Your task to perform on an android device: turn off sleep mode Image 0: 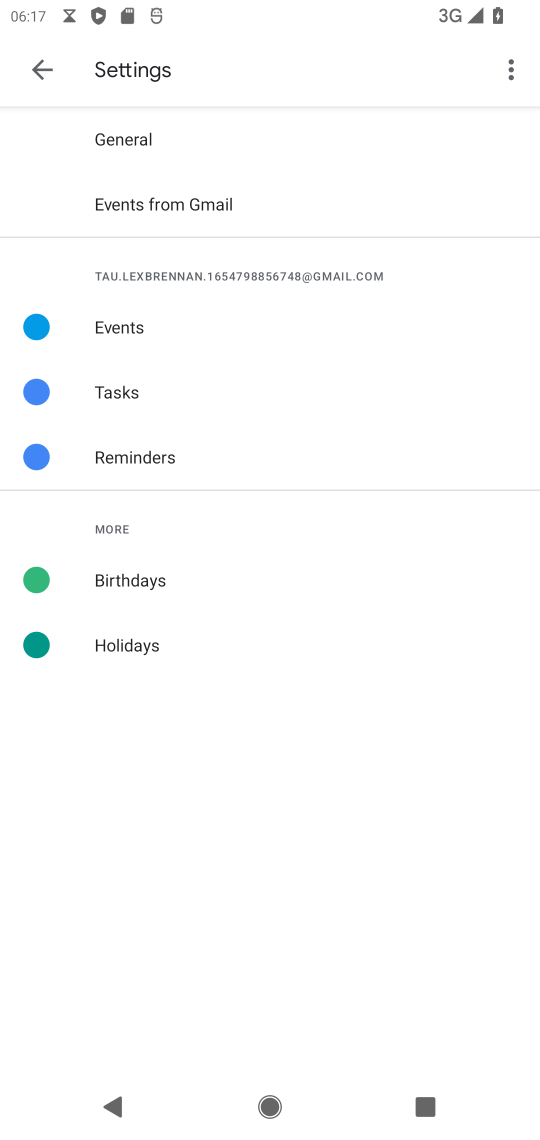
Step 0: press home button
Your task to perform on an android device: turn off sleep mode Image 1: 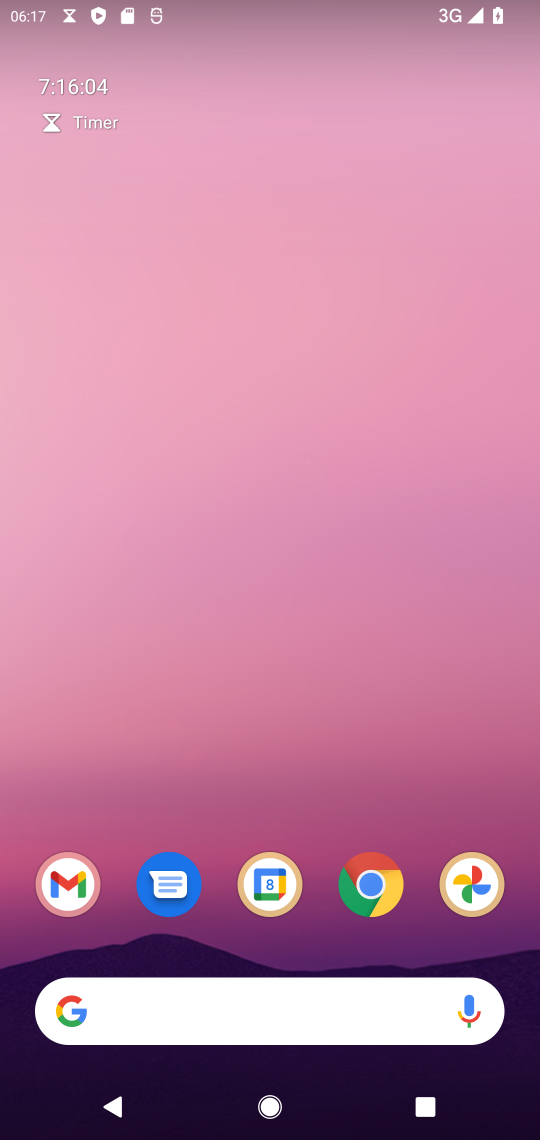
Step 1: click (335, 45)
Your task to perform on an android device: turn off sleep mode Image 2: 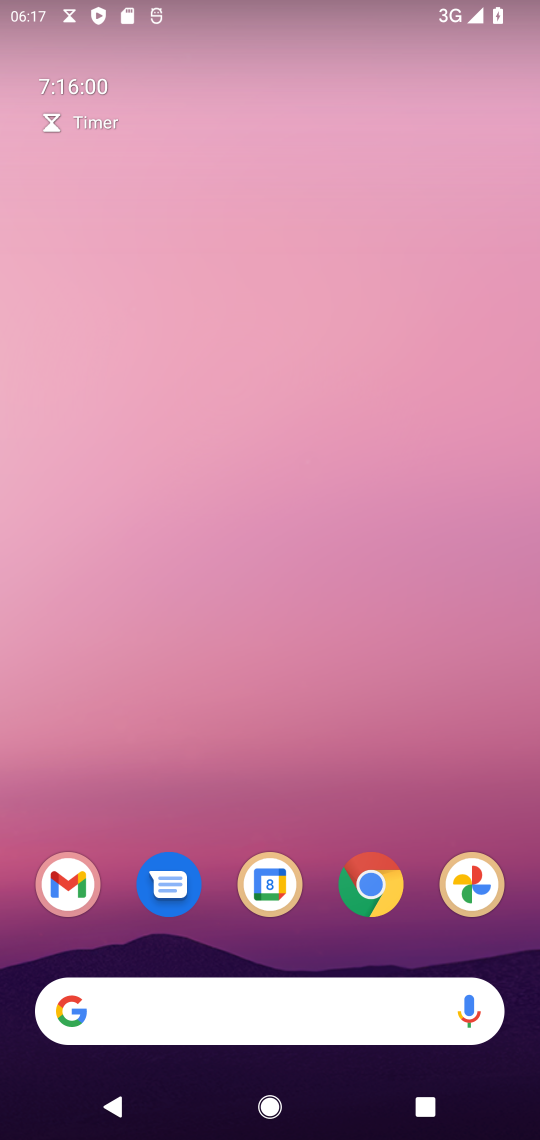
Step 2: drag from (438, 961) to (377, 269)
Your task to perform on an android device: turn off sleep mode Image 3: 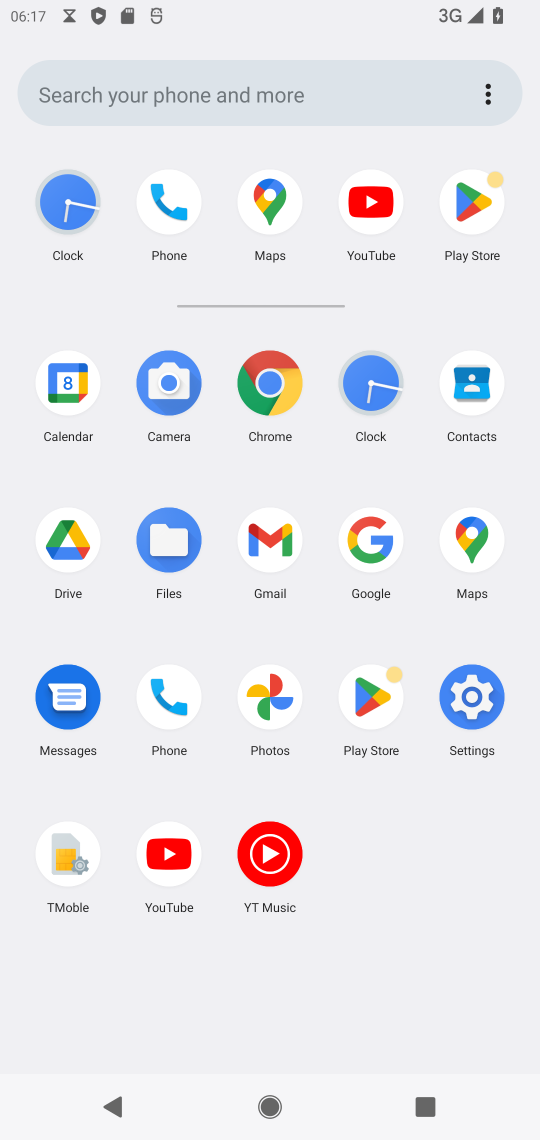
Step 3: click (486, 724)
Your task to perform on an android device: turn off sleep mode Image 4: 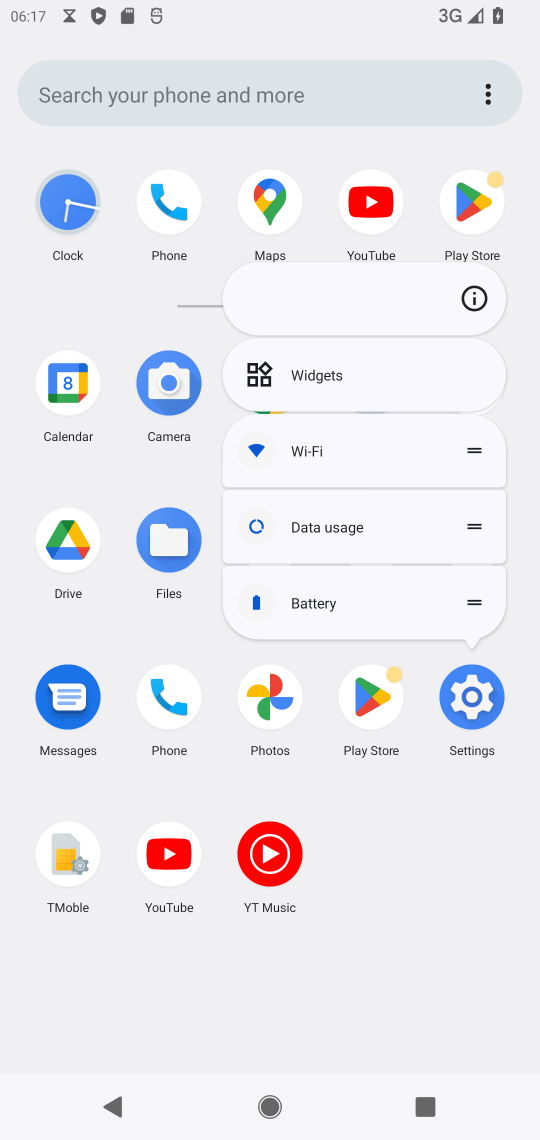
Step 4: click (483, 722)
Your task to perform on an android device: turn off sleep mode Image 5: 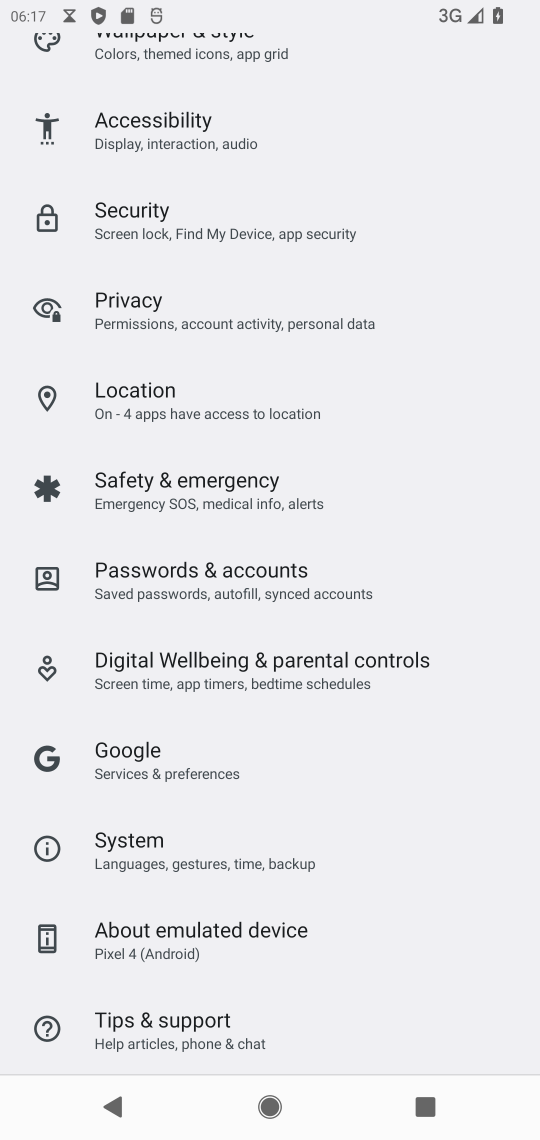
Step 5: drag from (299, 177) to (231, 867)
Your task to perform on an android device: turn off sleep mode Image 6: 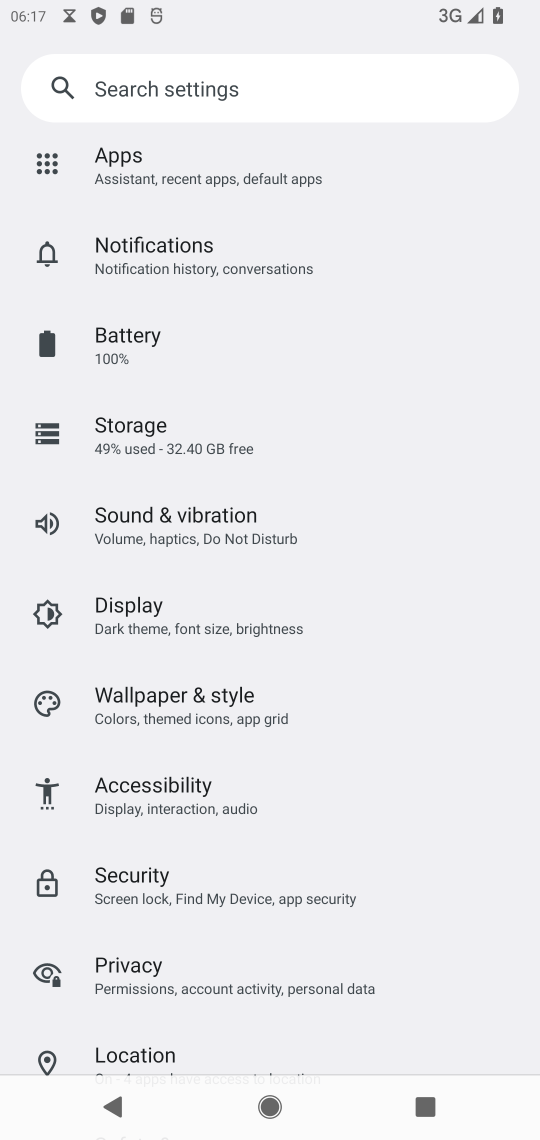
Step 6: click (197, 619)
Your task to perform on an android device: turn off sleep mode Image 7: 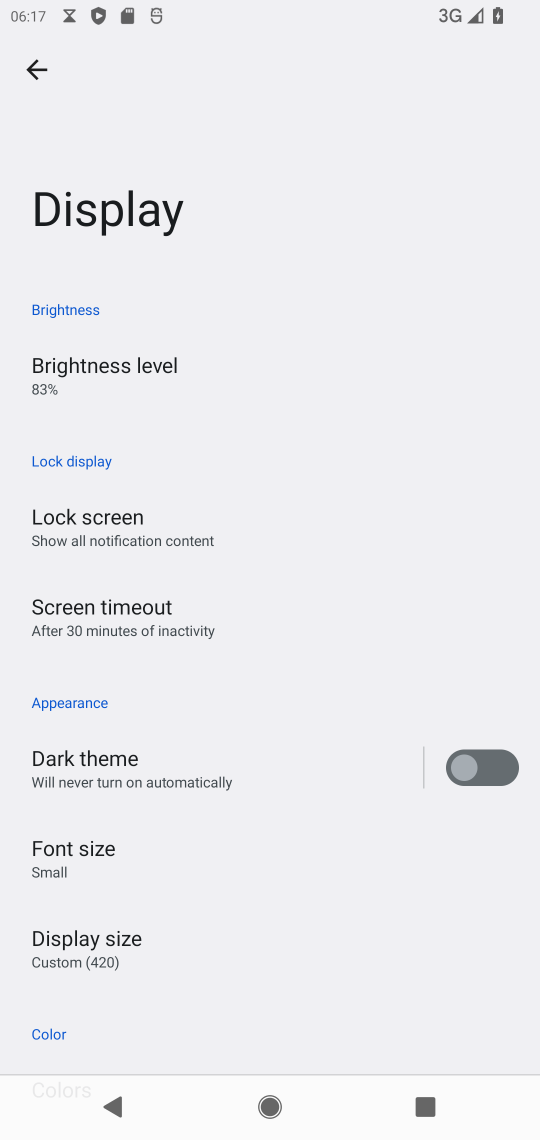
Step 7: task complete